Your task to perform on an android device: Is it going to rain today? Image 0: 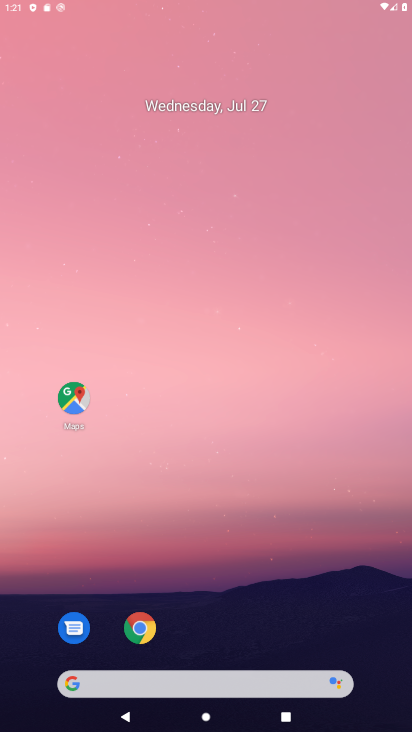
Step 0: press home button
Your task to perform on an android device: Is it going to rain today? Image 1: 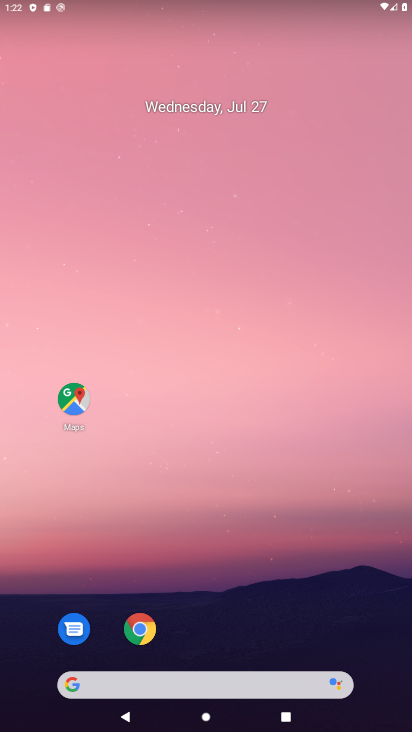
Step 1: click (74, 678)
Your task to perform on an android device: Is it going to rain today? Image 2: 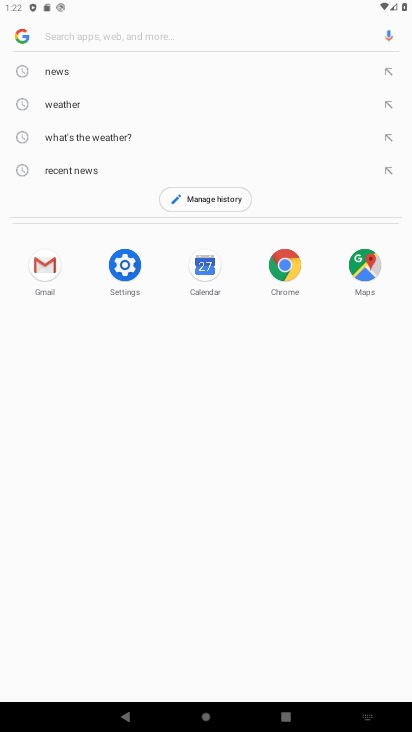
Step 2: type "rain today?"
Your task to perform on an android device: Is it going to rain today? Image 3: 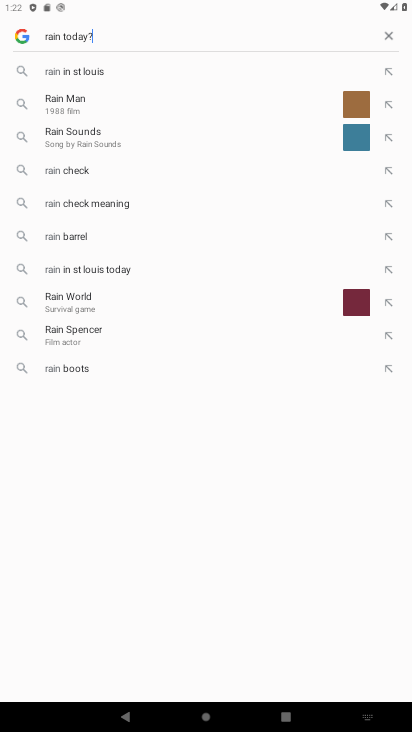
Step 3: press enter
Your task to perform on an android device: Is it going to rain today? Image 4: 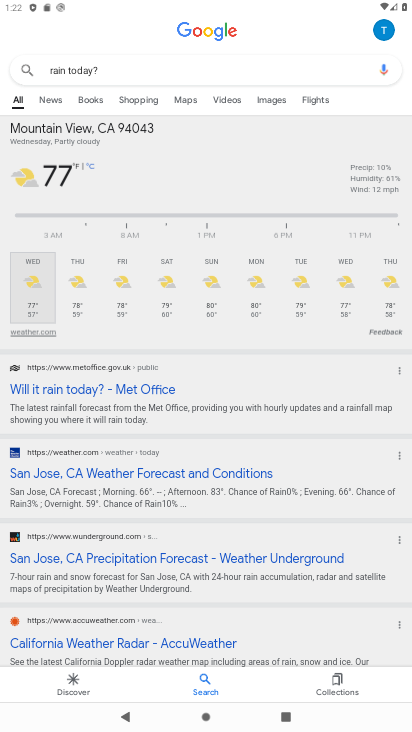
Step 4: task complete